Your task to perform on an android device: What's the weather today? Image 0: 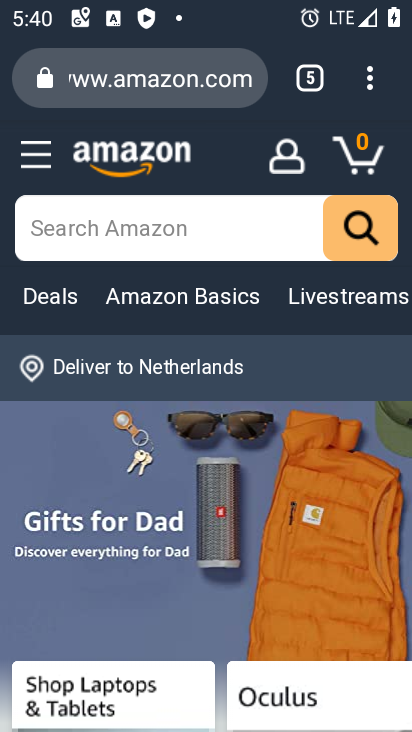
Step 0: press home button
Your task to perform on an android device: What's the weather today? Image 1: 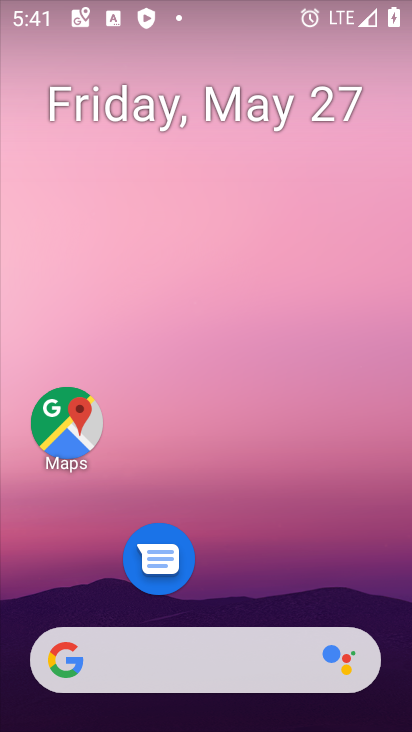
Step 1: drag from (239, 621) to (360, 9)
Your task to perform on an android device: What's the weather today? Image 2: 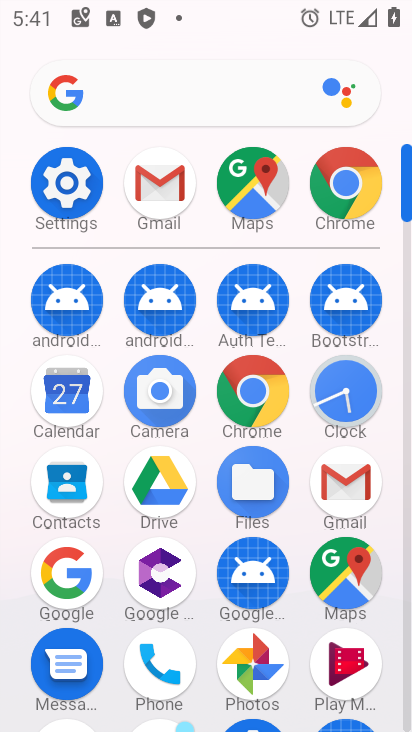
Step 2: click (261, 402)
Your task to perform on an android device: What's the weather today? Image 3: 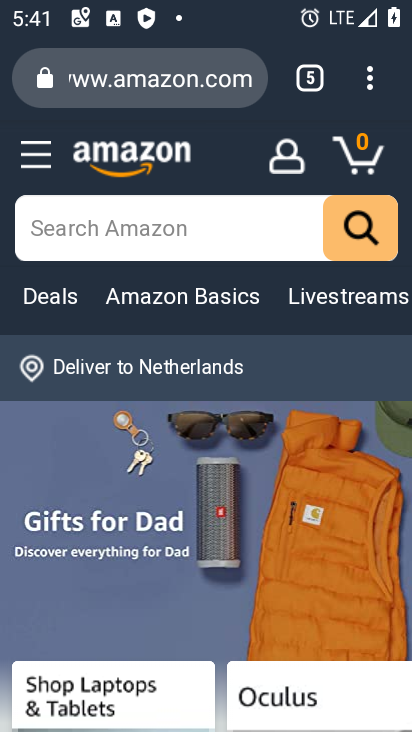
Step 3: click (101, 72)
Your task to perform on an android device: What's the weather today? Image 4: 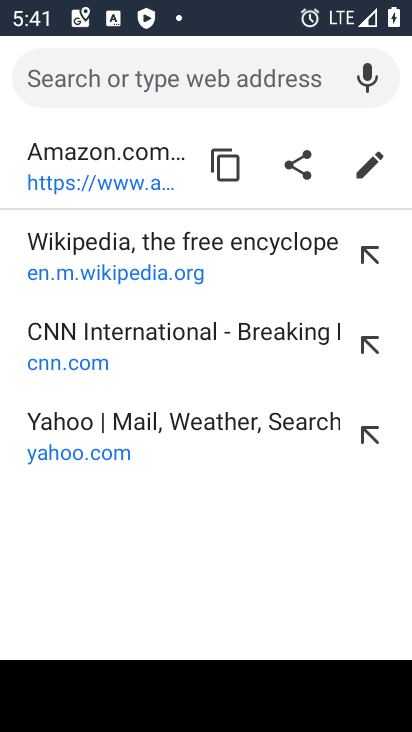
Step 4: type "weather today"
Your task to perform on an android device: What's the weather today? Image 5: 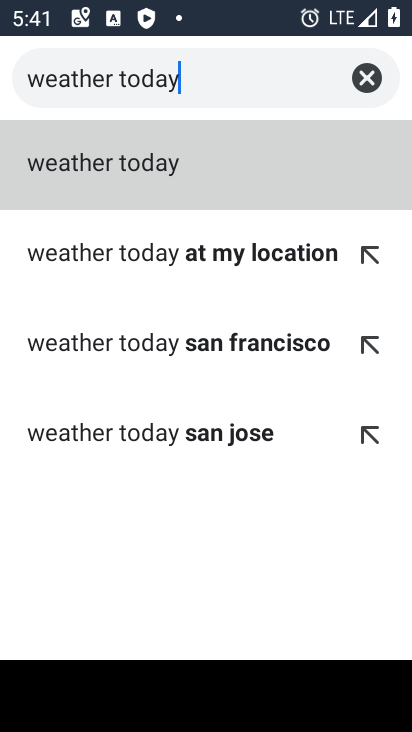
Step 5: click (161, 158)
Your task to perform on an android device: What's the weather today? Image 6: 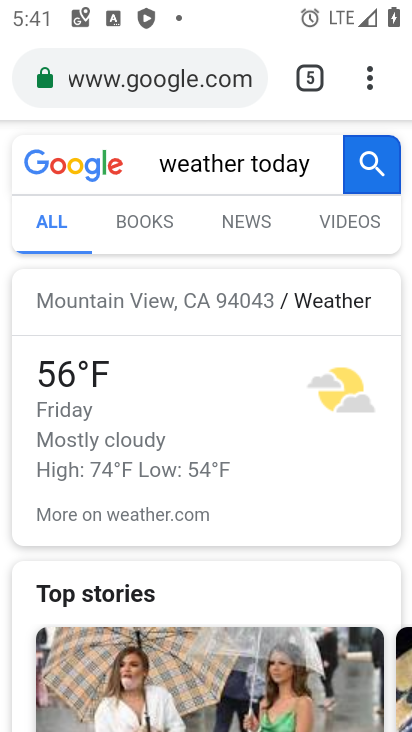
Step 6: task complete